Your task to perform on an android device: change the upload size in google photos Image 0: 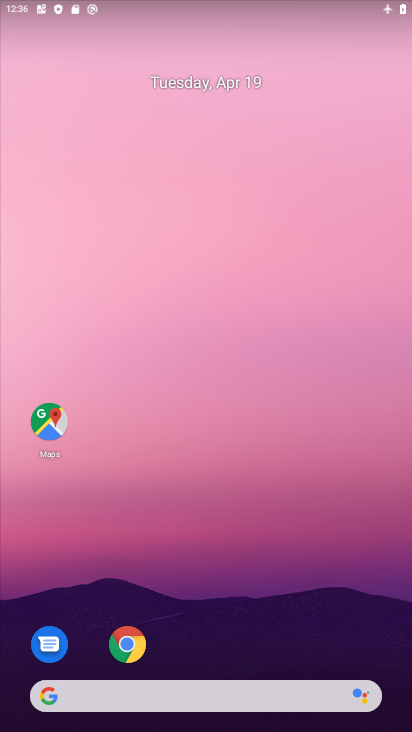
Step 0: drag from (173, 669) to (244, 18)
Your task to perform on an android device: change the upload size in google photos Image 1: 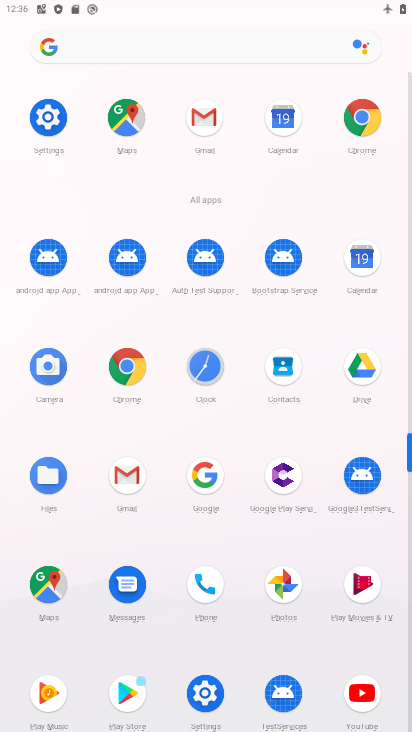
Step 1: click (276, 590)
Your task to perform on an android device: change the upload size in google photos Image 2: 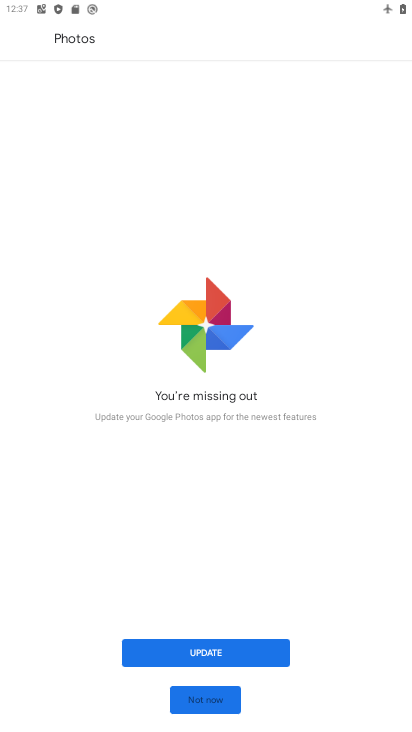
Step 2: click (214, 707)
Your task to perform on an android device: change the upload size in google photos Image 3: 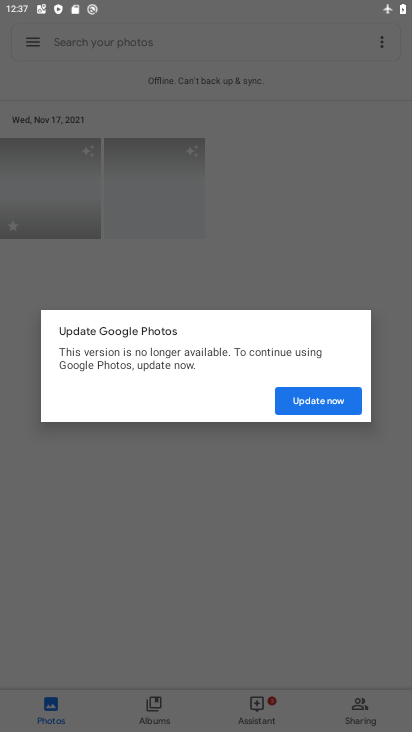
Step 3: click (335, 405)
Your task to perform on an android device: change the upload size in google photos Image 4: 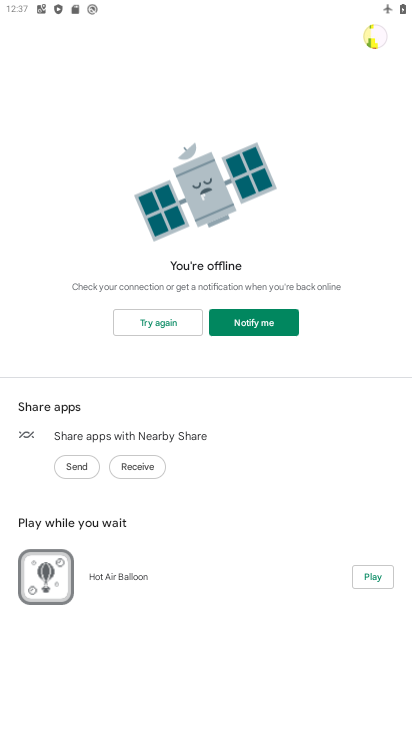
Step 4: task complete